Your task to perform on an android device: turn off wifi Image 0: 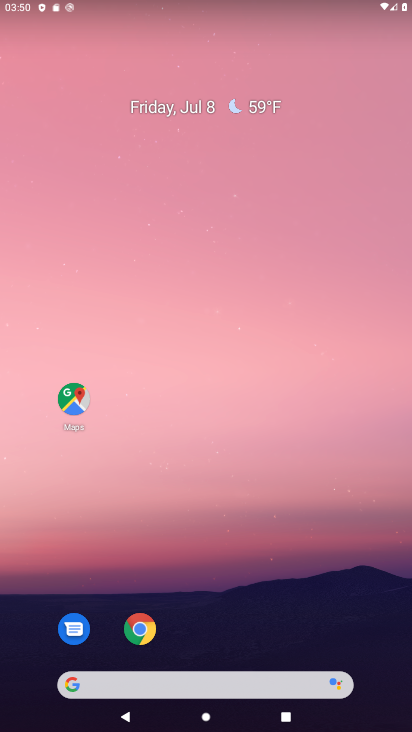
Step 0: press home button
Your task to perform on an android device: turn off wifi Image 1: 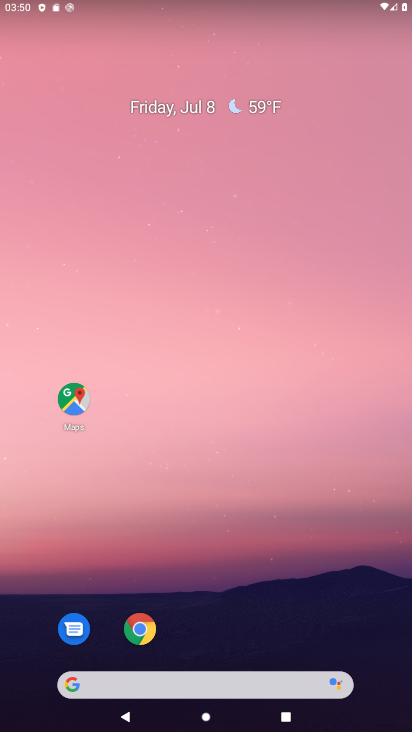
Step 1: drag from (216, 651) to (198, 55)
Your task to perform on an android device: turn off wifi Image 2: 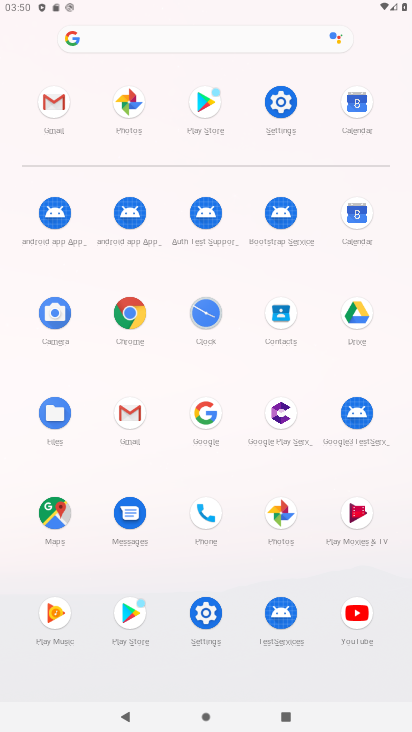
Step 2: click (278, 96)
Your task to perform on an android device: turn off wifi Image 3: 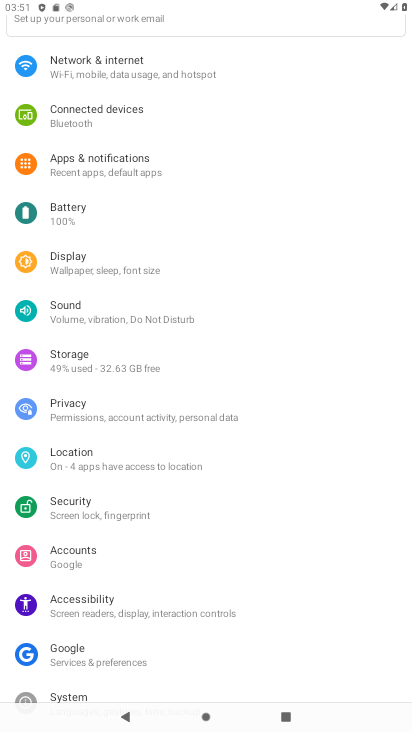
Step 3: click (120, 56)
Your task to perform on an android device: turn off wifi Image 4: 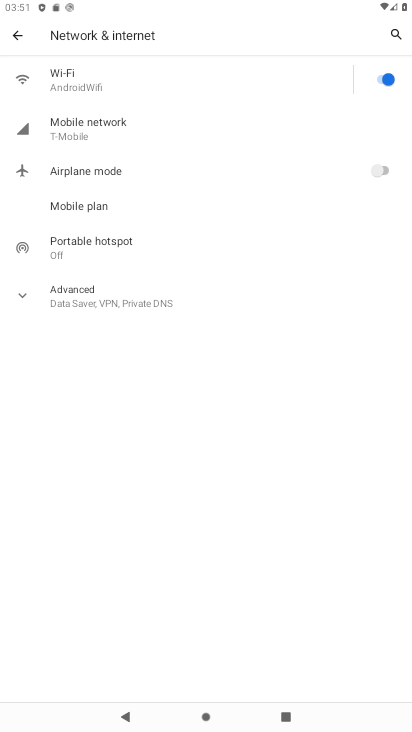
Step 4: click (382, 75)
Your task to perform on an android device: turn off wifi Image 5: 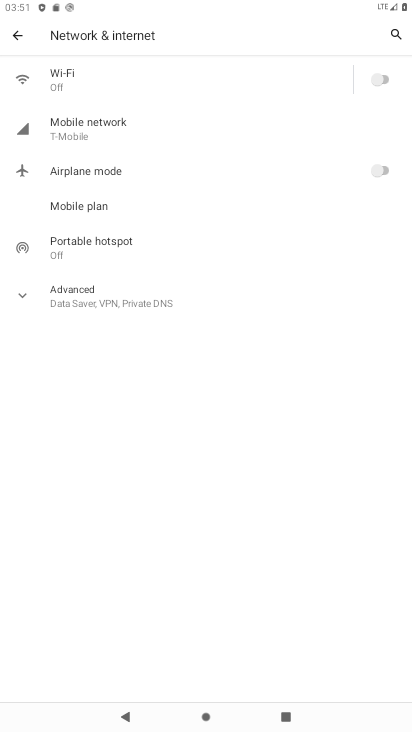
Step 5: task complete